Your task to perform on an android device: turn on javascript in the chrome app Image 0: 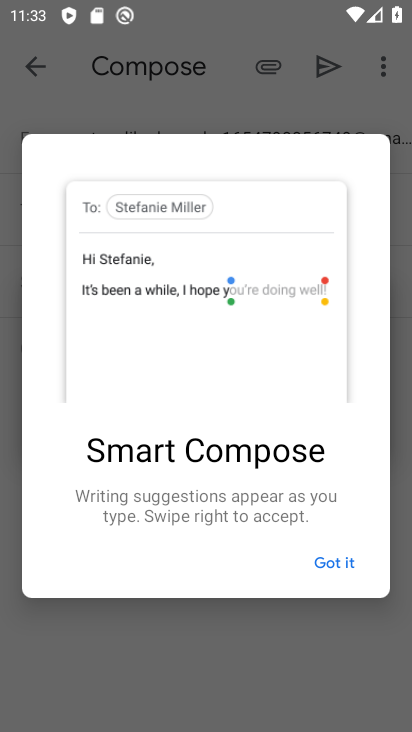
Step 0: press home button
Your task to perform on an android device: turn on javascript in the chrome app Image 1: 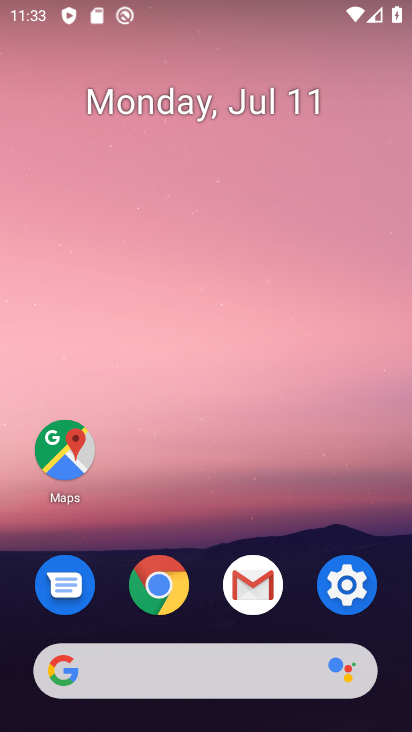
Step 1: click (160, 590)
Your task to perform on an android device: turn on javascript in the chrome app Image 2: 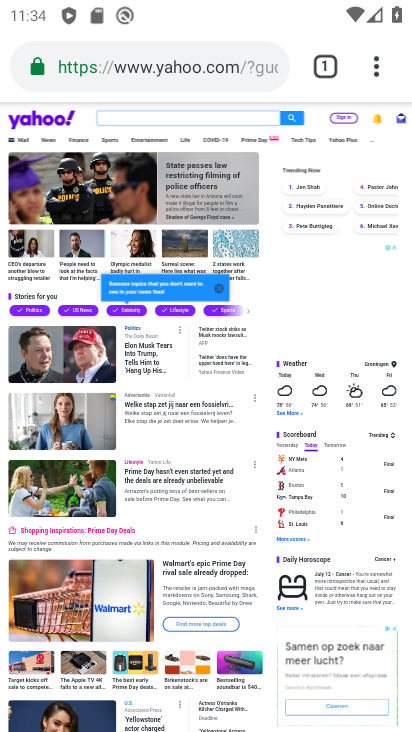
Step 2: click (379, 73)
Your task to perform on an android device: turn on javascript in the chrome app Image 3: 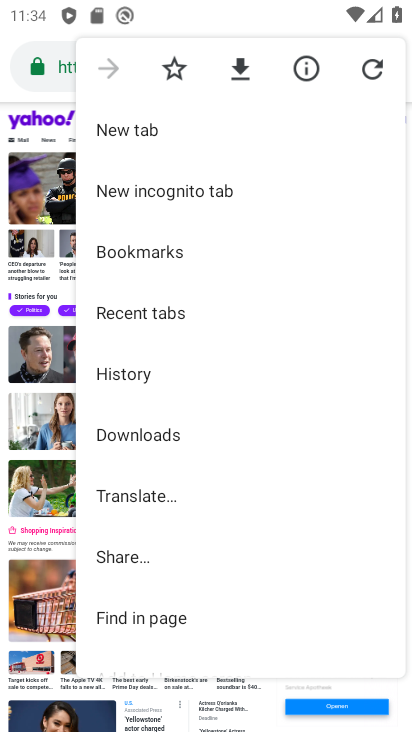
Step 3: drag from (197, 482) to (205, 377)
Your task to perform on an android device: turn on javascript in the chrome app Image 4: 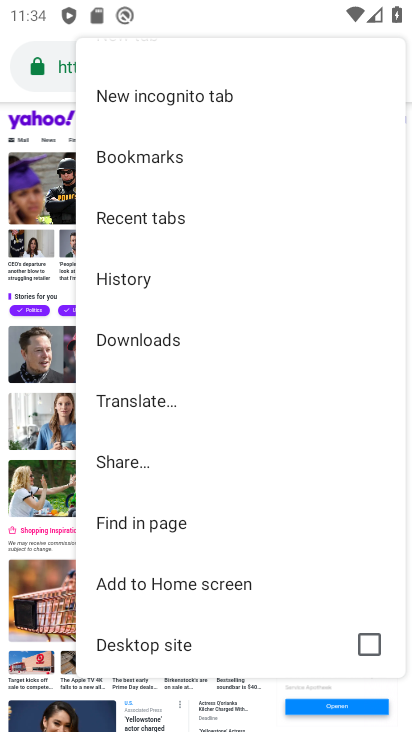
Step 4: drag from (192, 497) to (207, 394)
Your task to perform on an android device: turn on javascript in the chrome app Image 5: 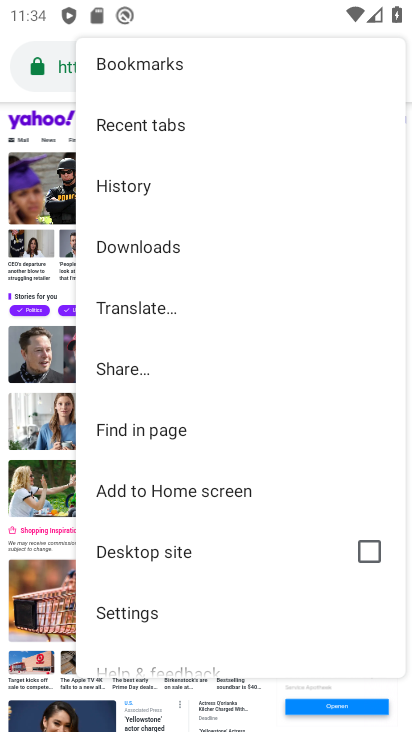
Step 5: click (141, 620)
Your task to perform on an android device: turn on javascript in the chrome app Image 6: 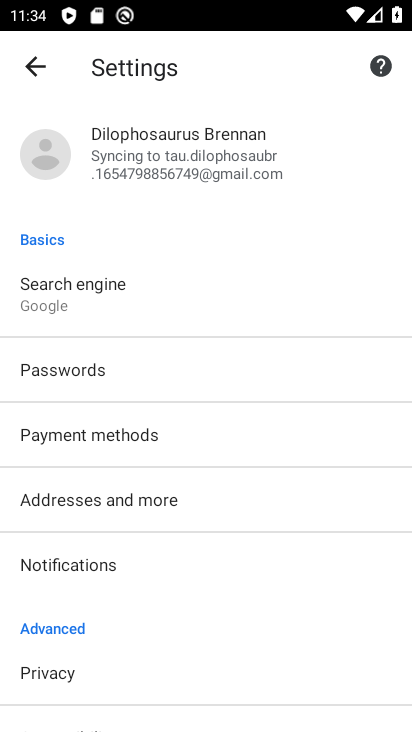
Step 6: drag from (217, 421) to (253, 258)
Your task to perform on an android device: turn on javascript in the chrome app Image 7: 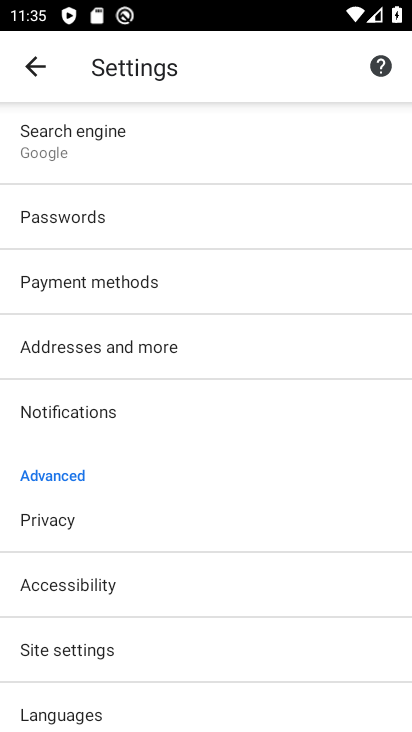
Step 7: click (88, 637)
Your task to perform on an android device: turn on javascript in the chrome app Image 8: 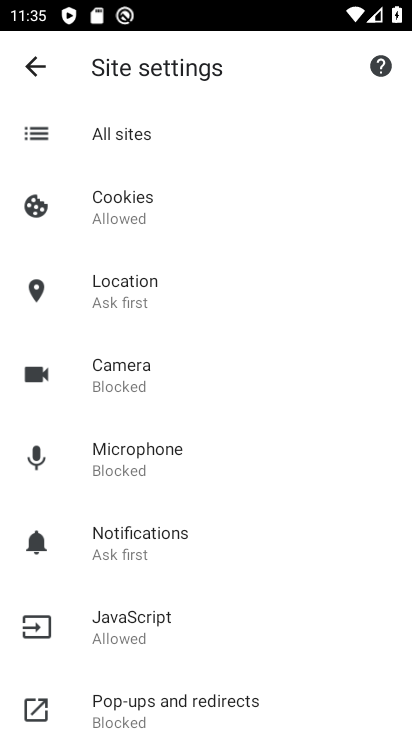
Step 8: click (146, 613)
Your task to perform on an android device: turn on javascript in the chrome app Image 9: 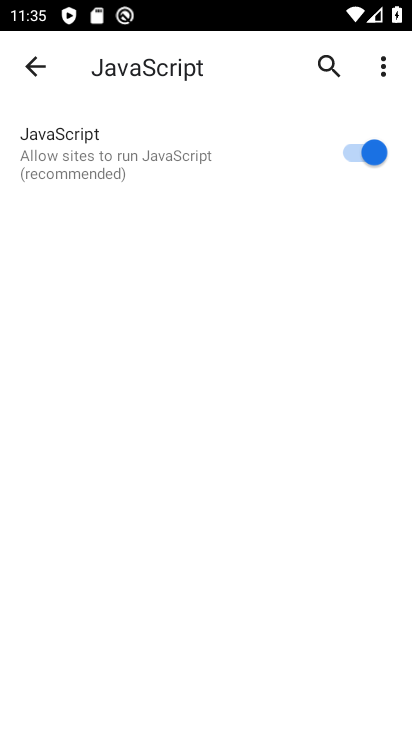
Step 9: task complete